Your task to perform on an android device: Check the weather Image 0: 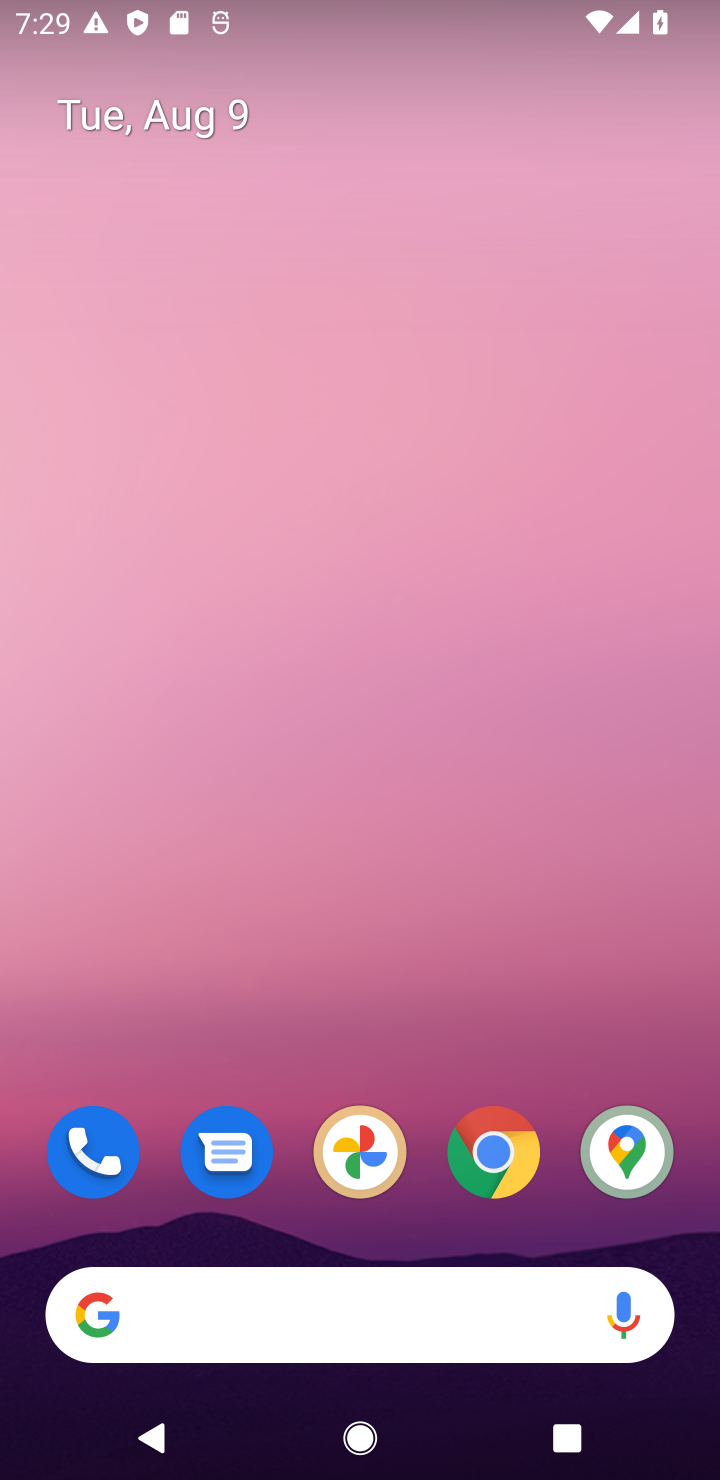
Step 0: click (295, 1296)
Your task to perform on an android device: Check the weather Image 1: 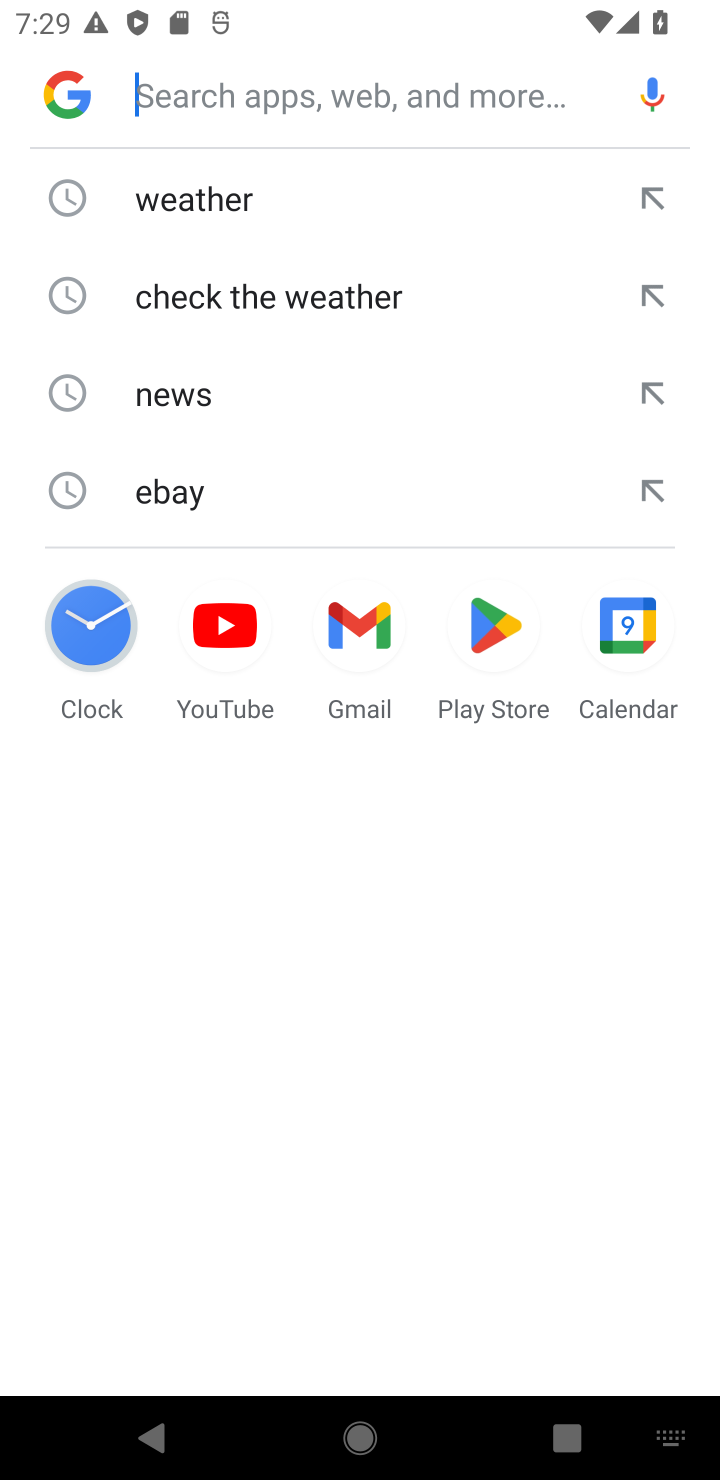
Step 1: click (259, 212)
Your task to perform on an android device: Check the weather Image 2: 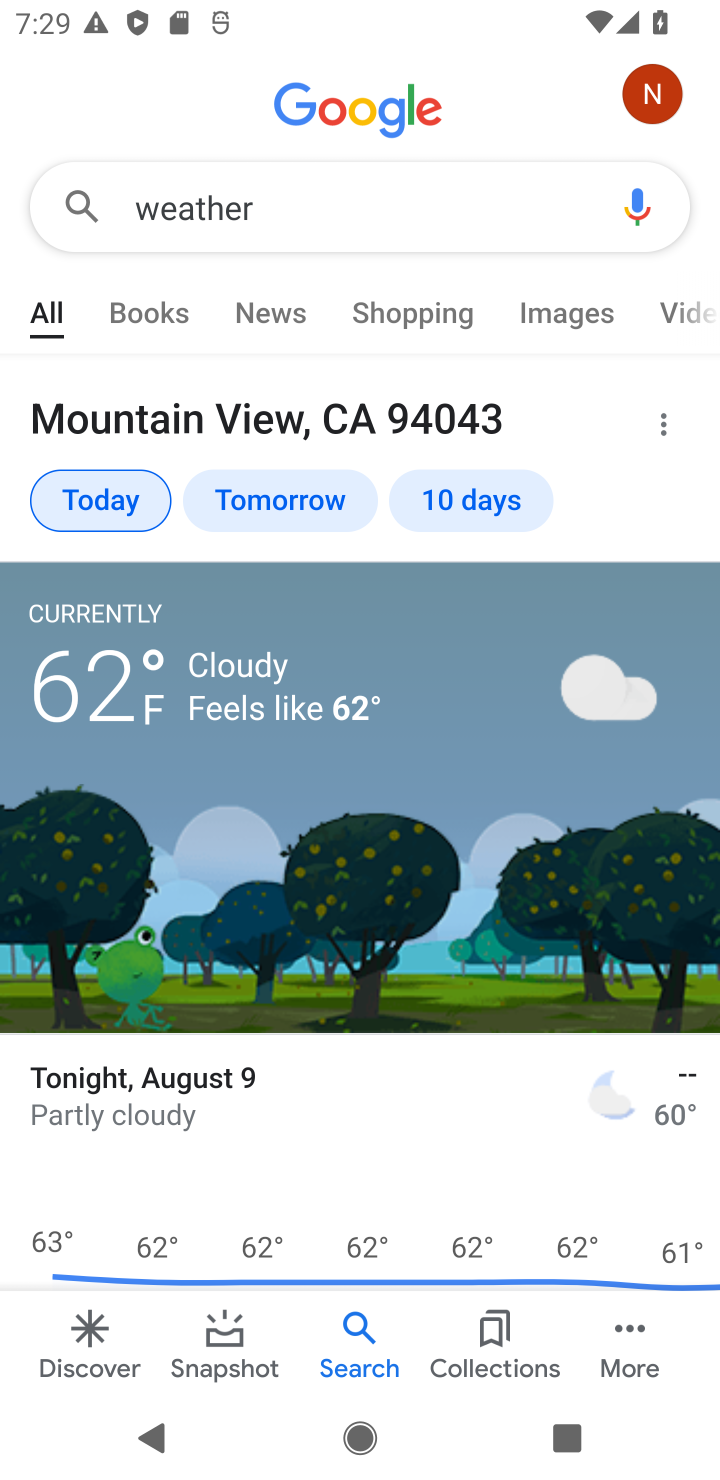
Step 2: task complete